Your task to perform on an android device: Open CNN.com Image 0: 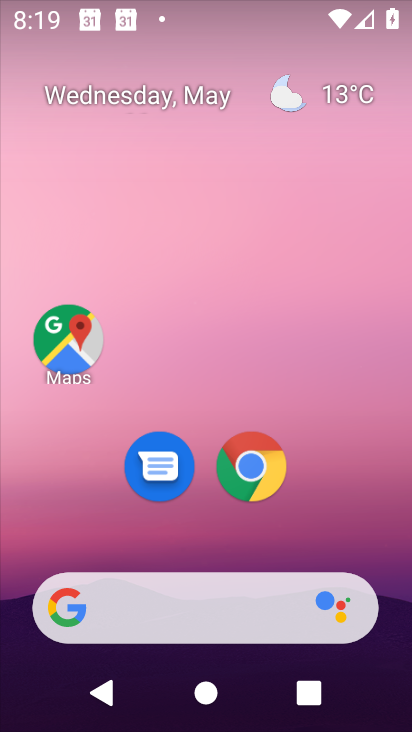
Step 0: press home button
Your task to perform on an android device: Open CNN.com Image 1: 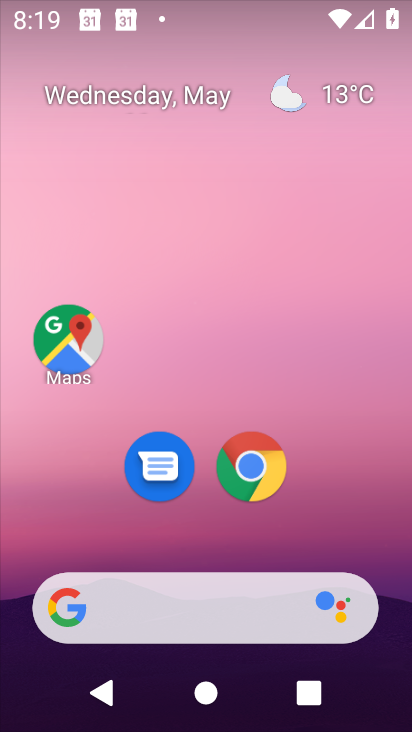
Step 1: click (260, 471)
Your task to perform on an android device: Open CNN.com Image 2: 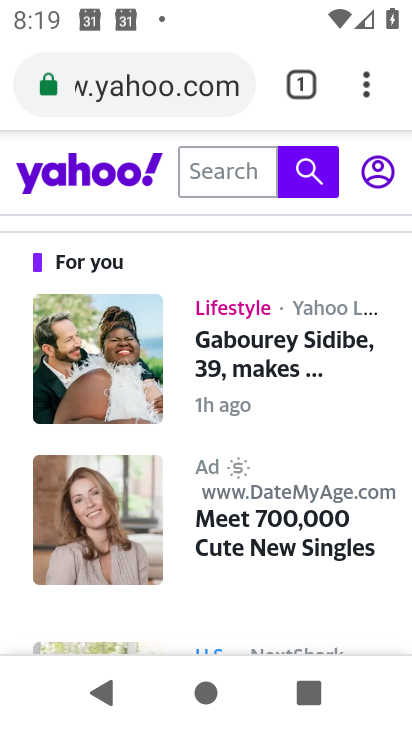
Step 2: click (299, 90)
Your task to perform on an android device: Open CNN.com Image 3: 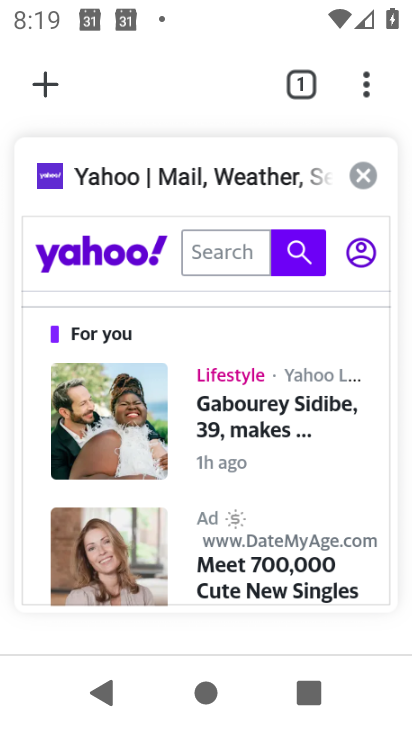
Step 3: click (364, 178)
Your task to perform on an android device: Open CNN.com Image 4: 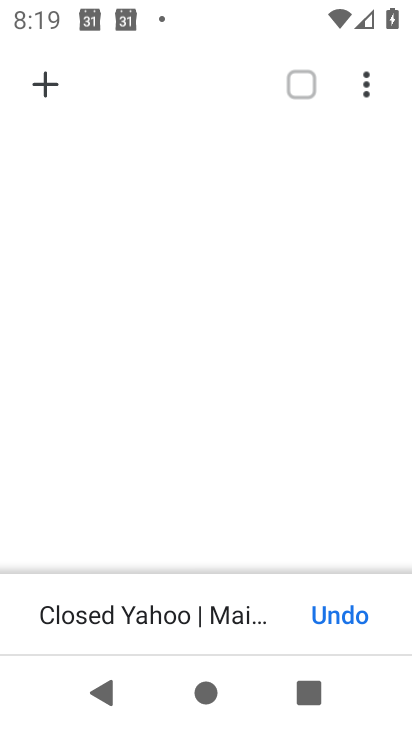
Step 4: click (50, 89)
Your task to perform on an android device: Open CNN.com Image 5: 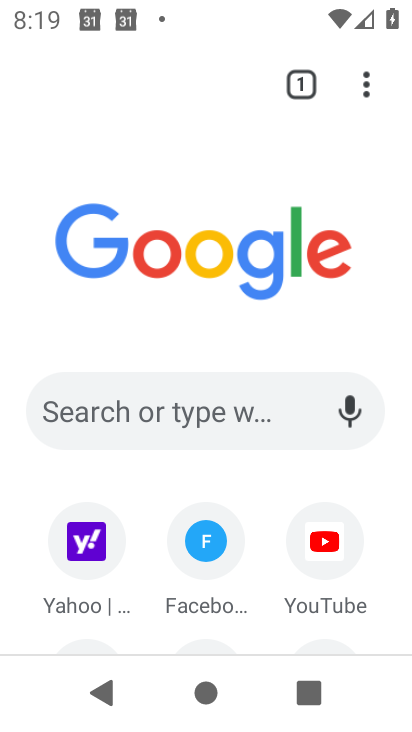
Step 5: drag from (152, 488) to (185, 79)
Your task to perform on an android device: Open CNN.com Image 6: 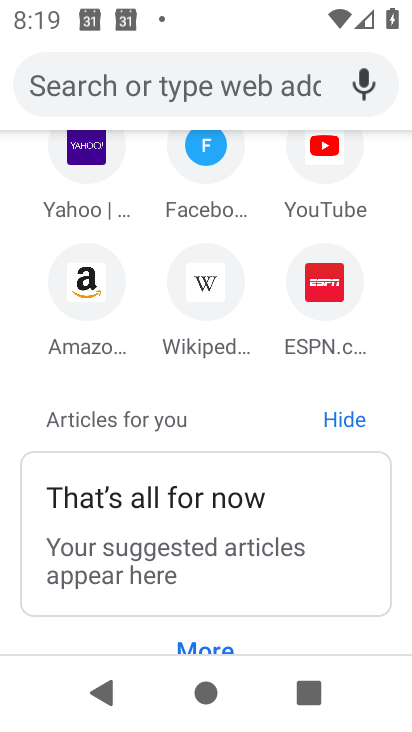
Step 6: click (148, 92)
Your task to perform on an android device: Open CNN.com Image 7: 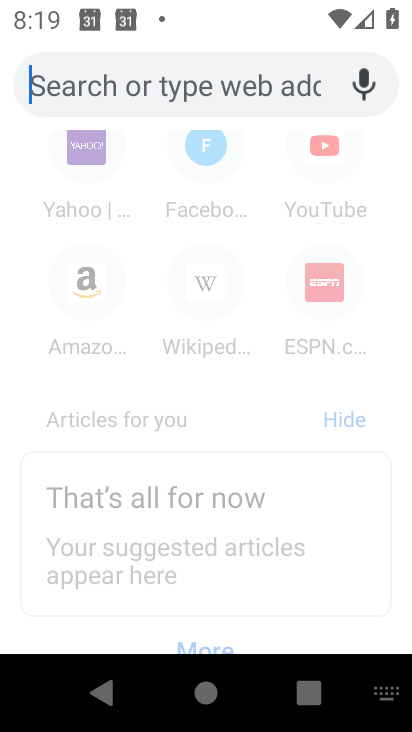
Step 7: type "cnn.com"
Your task to perform on an android device: Open CNN.com Image 8: 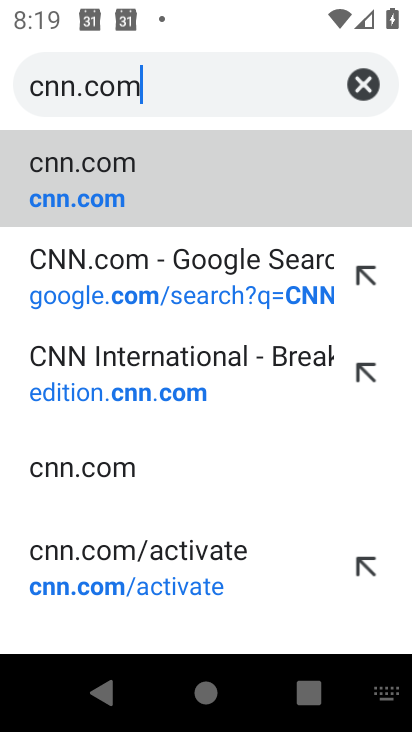
Step 8: click (145, 192)
Your task to perform on an android device: Open CNN.com Image 9: 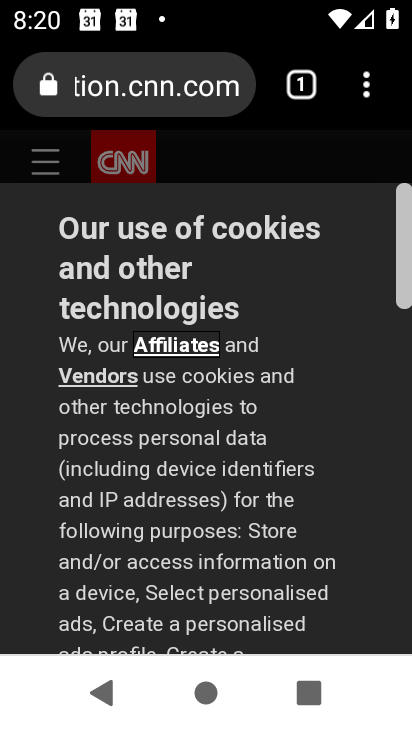
Step 9: drag from (203, 515) to (263, 184)
Your task to perform on an android device: Open CNN.com Image 10: 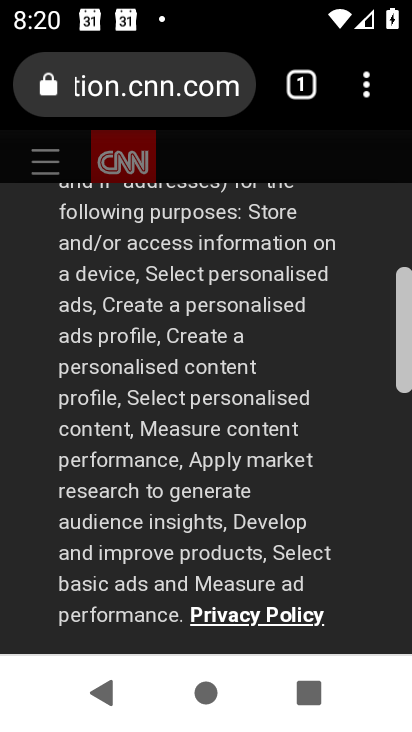
Step 10: drag from (256, 579) to (274, 223)
Your task to perform on an android device: Open CNN.com Image 11: 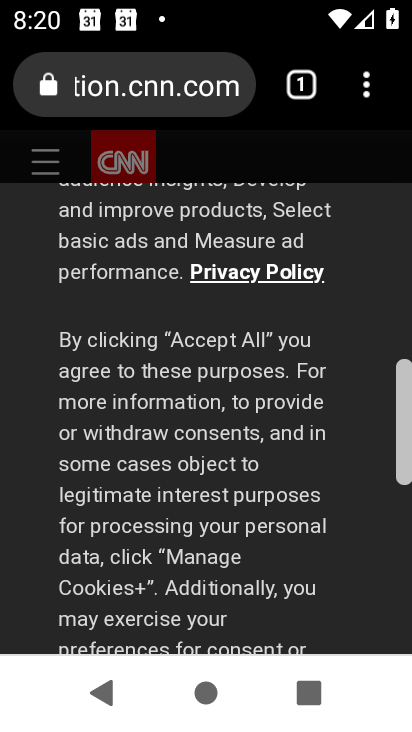
Step 11: drag from (196, 550) to (218, 161)
Your task to perform on an android device: Open CNN.com Image 12: 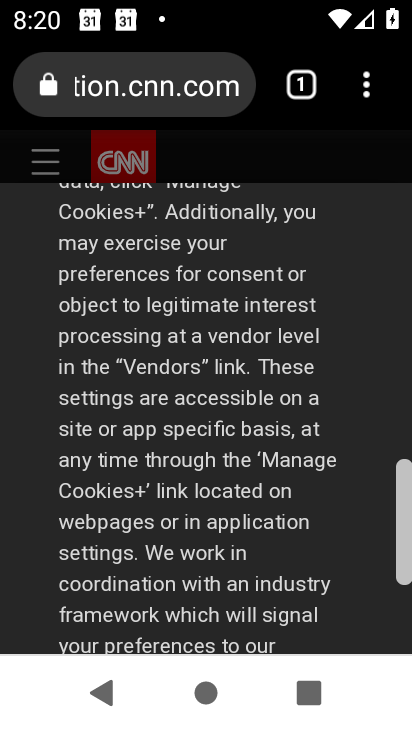
Step 12: drag from (197, 596) to (226, 148)
Your task to perform on an android device: Open CNN.com Image 13: 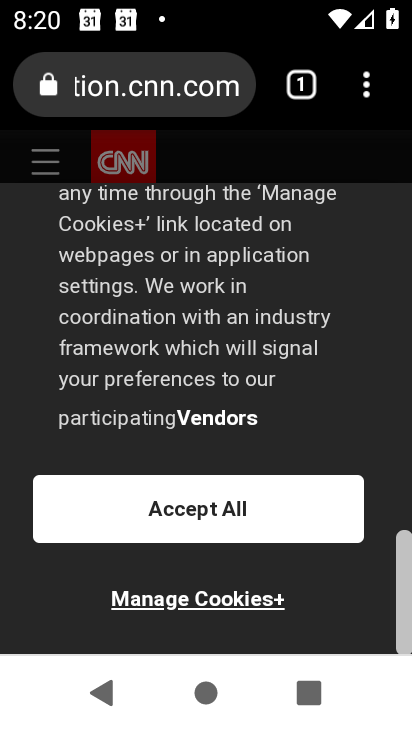
Step 13: click (189, 525)
Your task to perform on an android device: Open CNN.com Image 14: 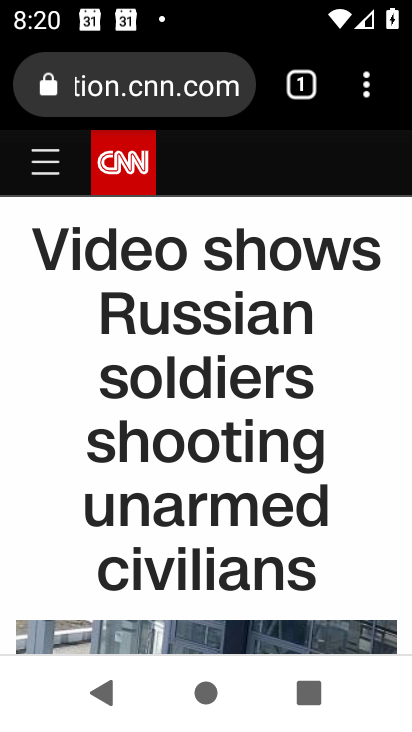
Step 14: task complete